Your task to perform on an android device: set an alarm Image 0: 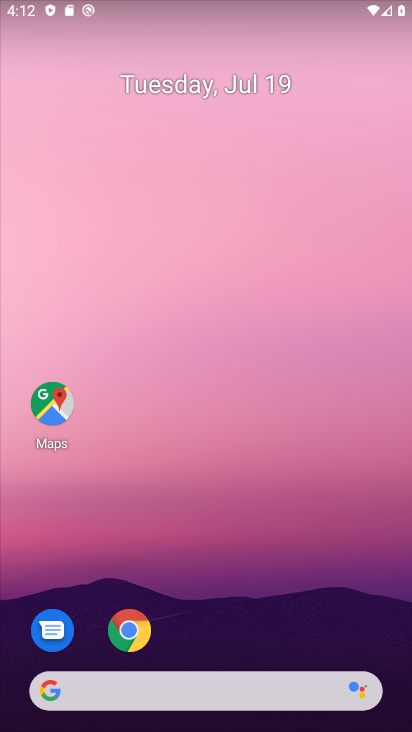
Step 0: drag from (169, 619) to (170, 219)
Your task to perform on an android device: set an alarm Image 1: 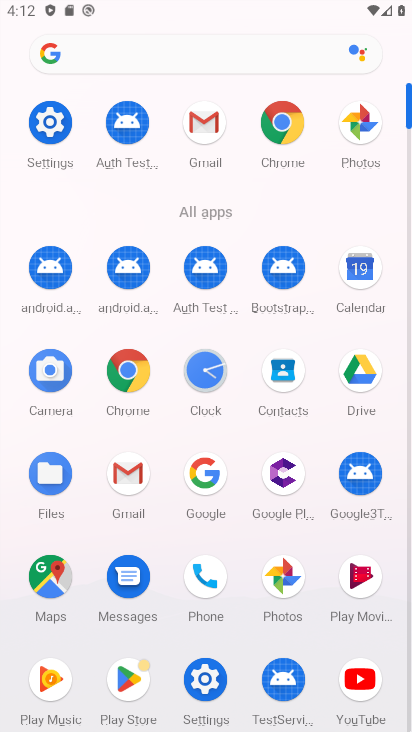
Step 1: click (206, 368)
Your task to perform on an android device: set an alarm Image 2: 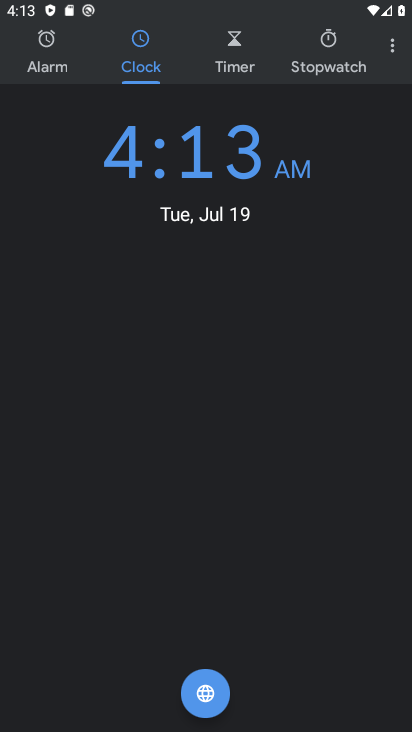
Step 2: click (52, 58)
Your task to perform on an android device: set an alarm Image 3: 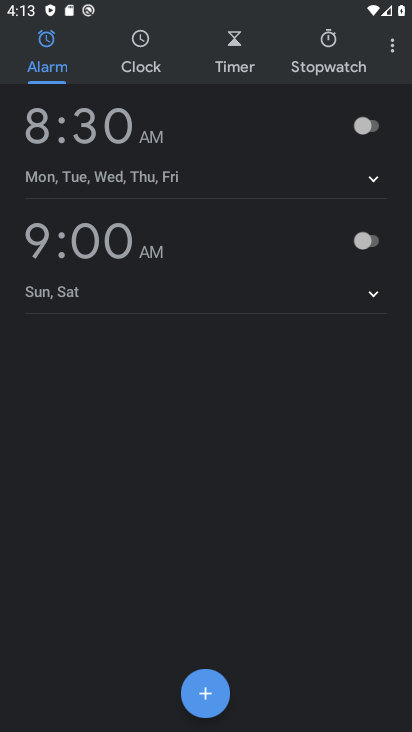
Step 3: click (381, 131)
Your task to perform on an android device: set an alarm Image 4: 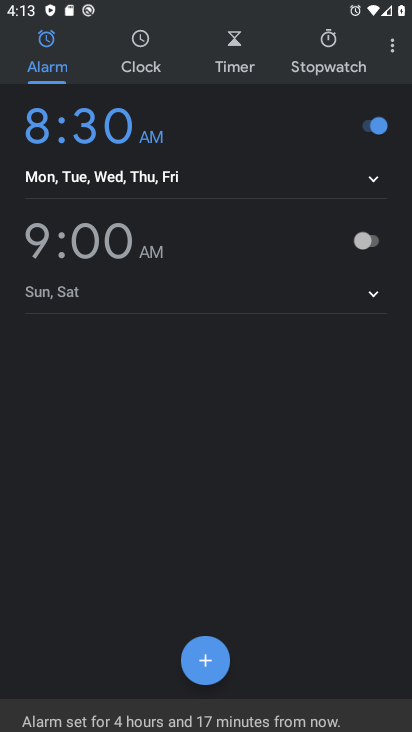
Step 4: task complete